Your task to perform on an android device: remove spam from my inbox in the gmail app Image 0: 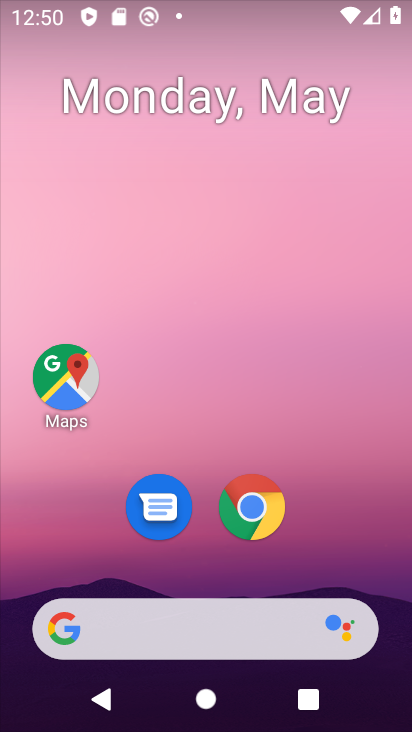
Step 0: drag from (378, 477) to (350, 58)
Your task to perform on an android device: remove spam from my inbox in the gmail app Image 1: 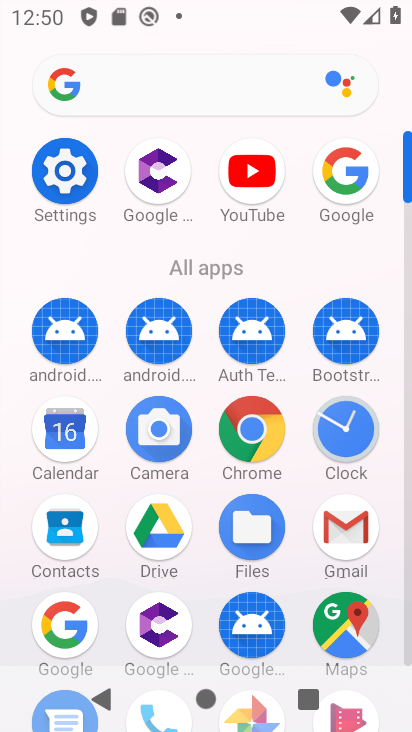
Step 1: click (348, 514)
Your task to perform on an android device: remove spam from my inbox in the gmail app Image 2: 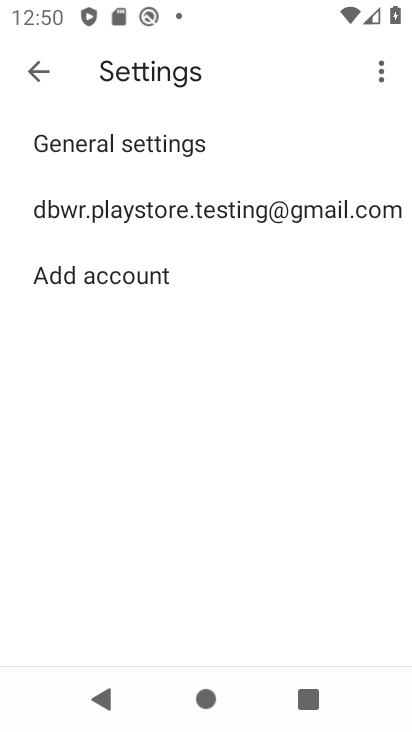
Step 2: click (41, 73)
Your task to perform on an android device: remove spam from my inbox in the gmail app Image 3: 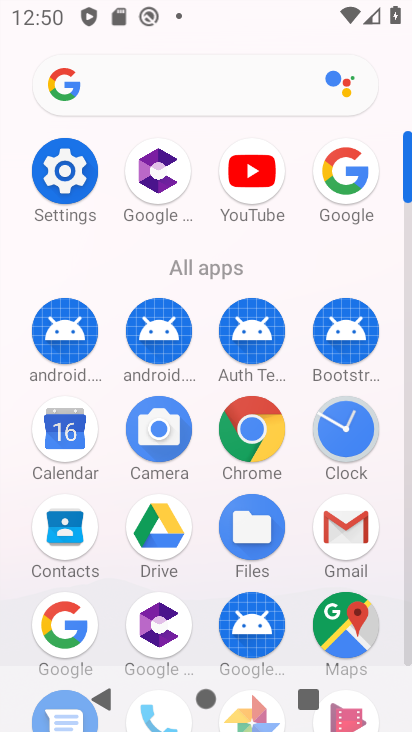
Step 3: click (350, 536)
Your task to perform on an android device: remove spam from my inbox in the gmail app Image 4: 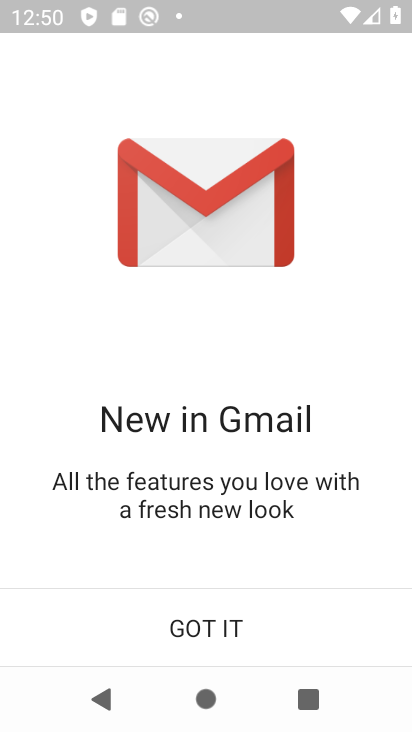
Step 4: click (178, 621)
Your task to perform on an android device: remove spam from my inbox in the gmail app Image 5: 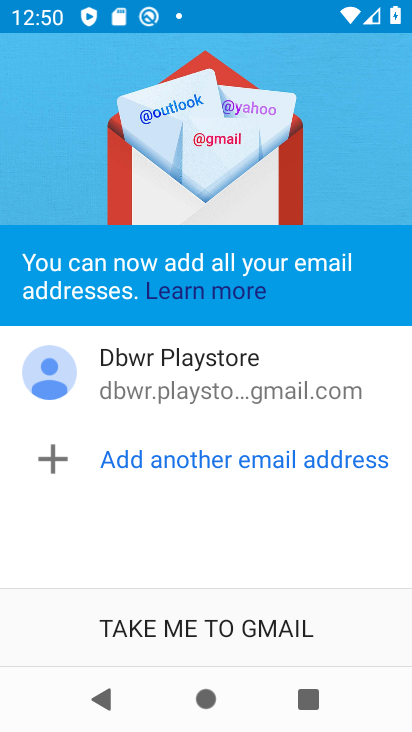
Step 5: click (259, 623)
Your task to perform on an android device: remove spam from my inbox in the gmail app Image 6: 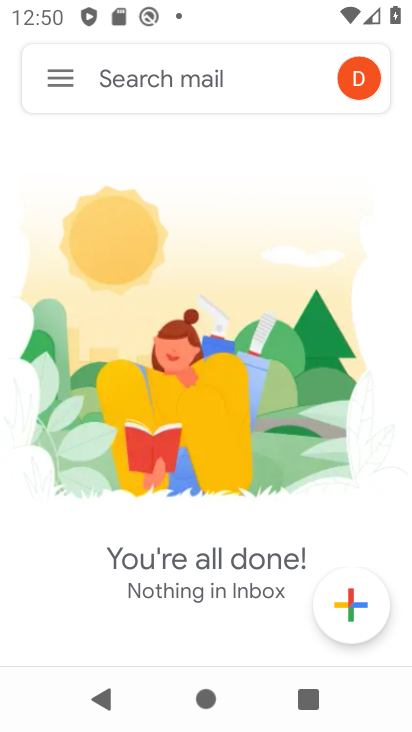
Step 6: click (51, 75)
Your task to perform on an android device: remove spam from my inbox in the gmail app Image 7: 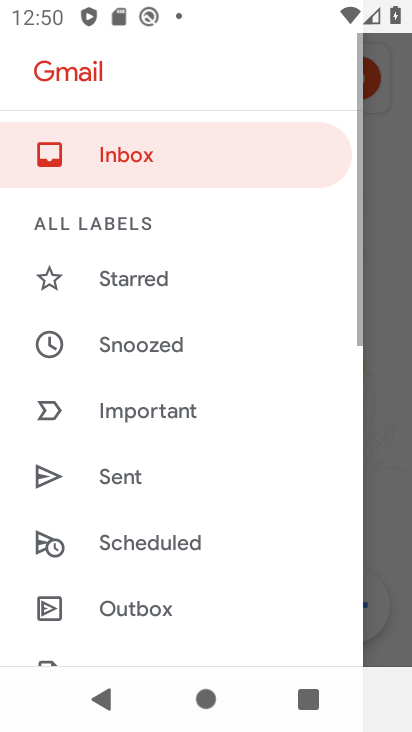
Step 7: click (173, 64)
Your task to perform on an android device: remove spam from my inbox in the gmail app Image 8: 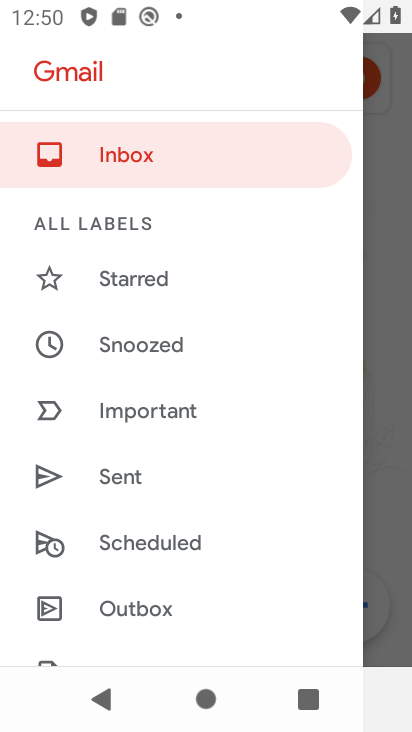
Step 8: drag from (144, 407) to (174, 488)
Your task to perform on an android device: remove spam from my inbox in the gmail app Image 9: 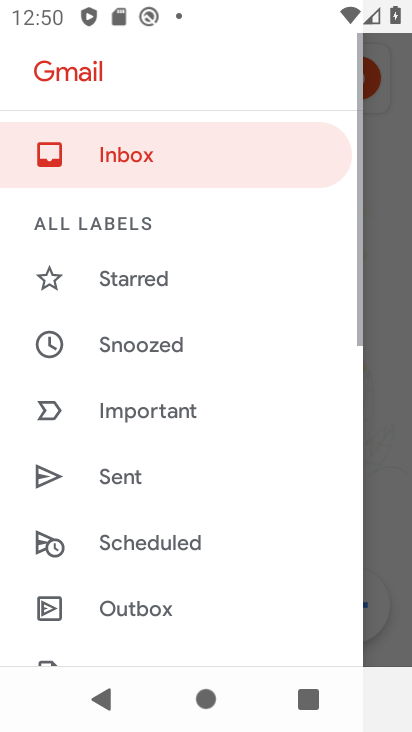
Step 9: drag from (215, 477) to (170, 643)
Your task to perform on an android device: remove spam from my inbox in the gmail app Image 10: 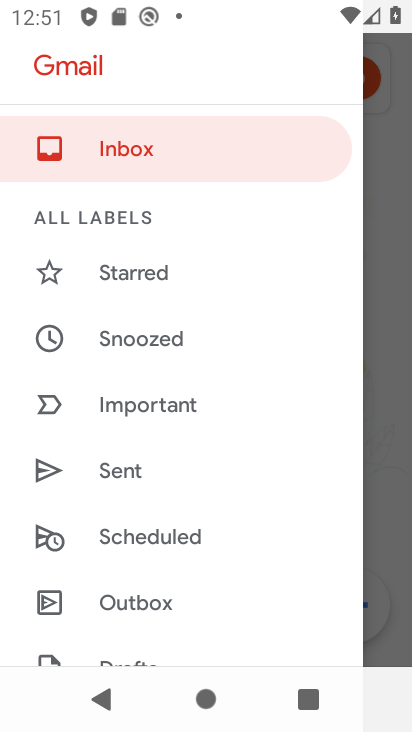
Step 10: click (196, 157)
Your task to perform on an android device: remove spam from my inbox in the gmail app Image 11: 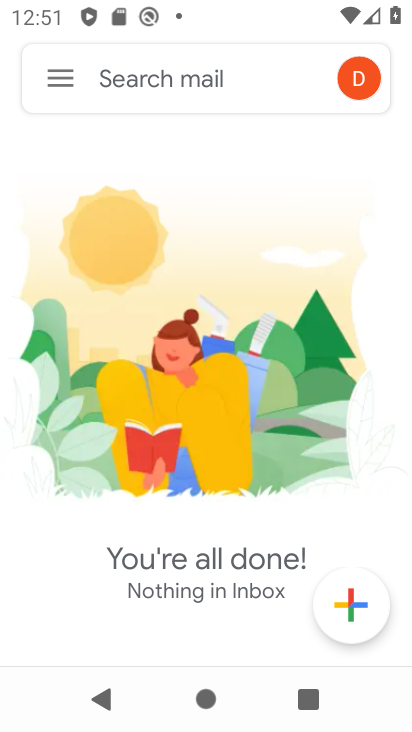
Step 11: task complete